Your task to perform on an android device: see tabs open on other devices in the chrome app Image 0: 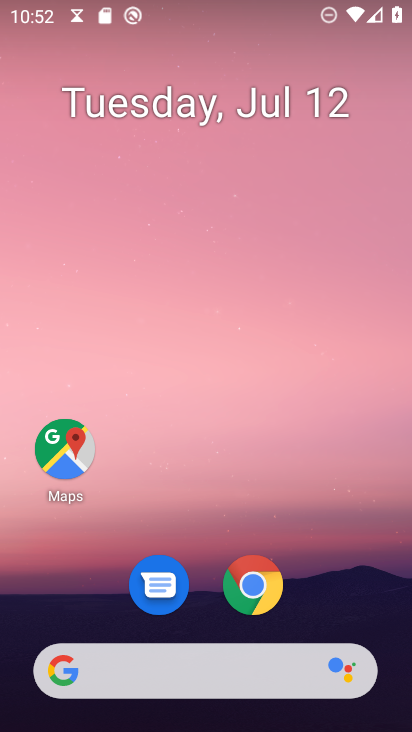
Step 0: click (252, 589)
Your task to perform on an android device: see tabs open on other devices in the chrome app Image 1: 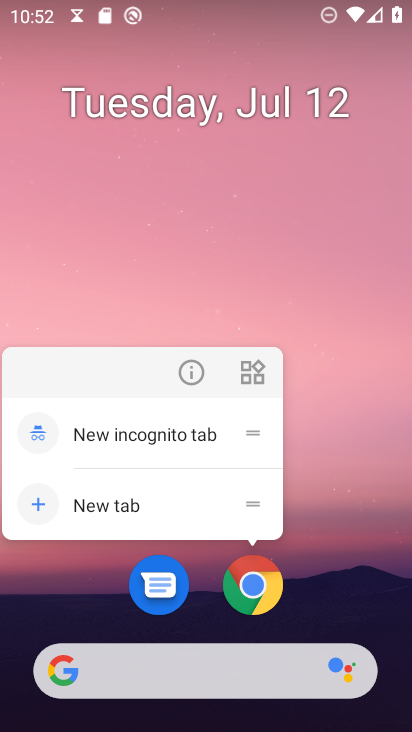
Step 1: click (252, 588)
Your task to perform on an android device: see tabs open on other devices in the chrome app Image 2: 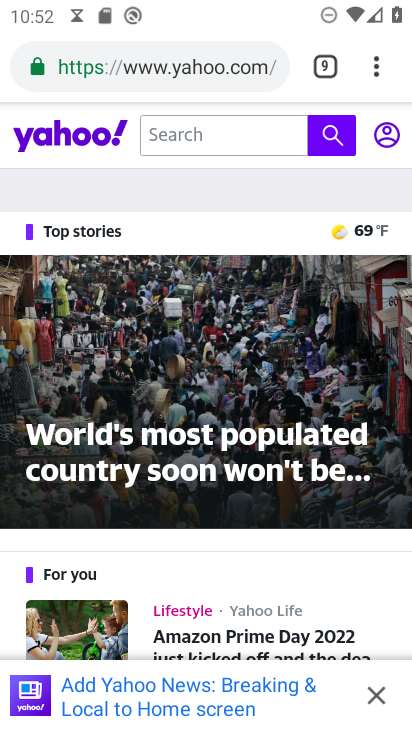
Step 2: task complete